Your task to perform on an android device: allow cookies in the chrome app Image 0: 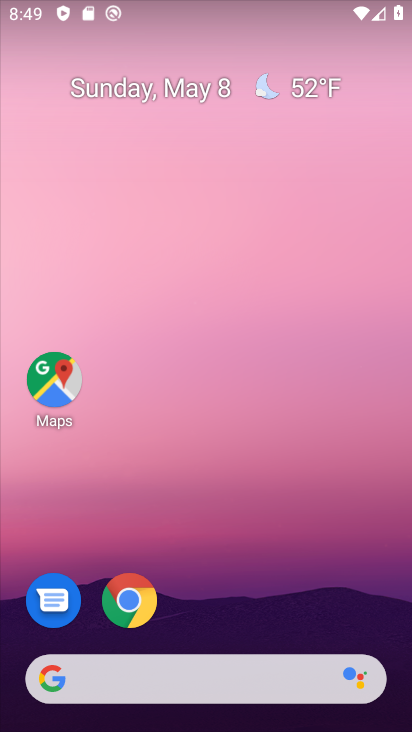
Step 0: click (144, 607)
Your task to perform on an android device: allow cookies in the chrome app Image 1: 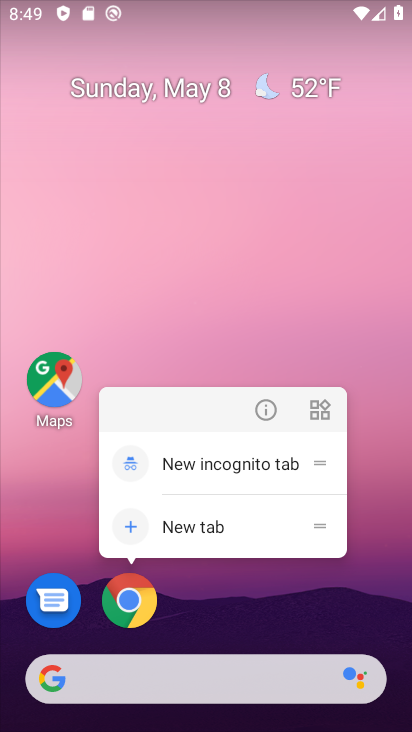
Step 1: click (140, 619)
Your task to perform on an android device: allow cookies in the chrome app Image 2: 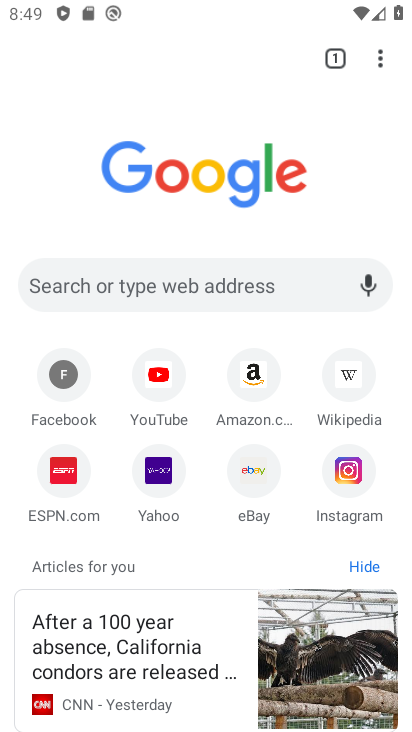
Step 2: drag from (383, 57) to (182, 491)
Your task to perform on an android device: allow cookies in the chrome app Image 3: 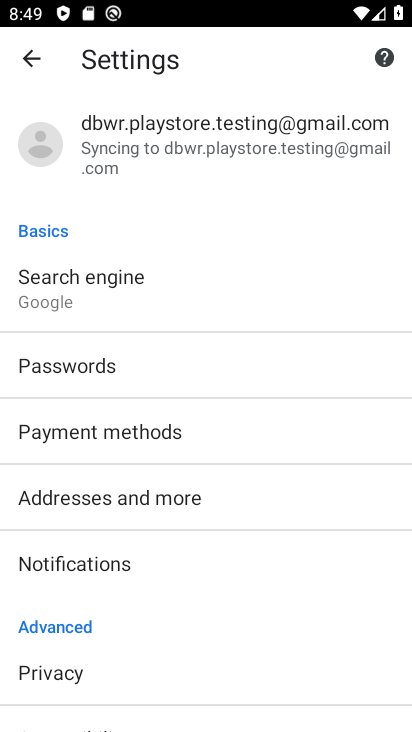
Step 3: drag from (151, 661) to (169, 407)
Your task to perform on an android device: allow cookies in the chrome app Image 4: 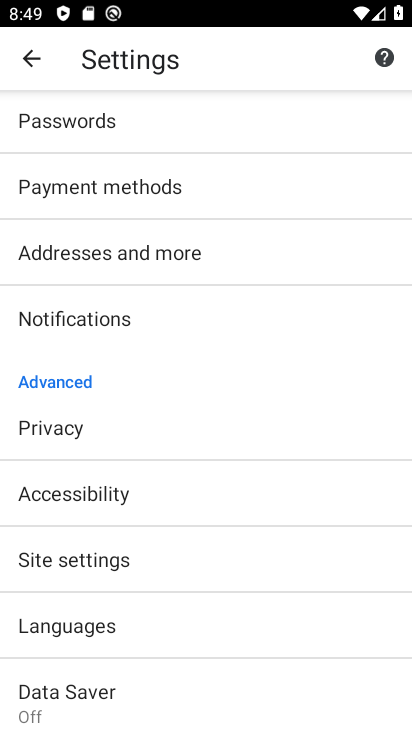
Step 4: click (114, 560)
Your task to perform on an android device: allow cookies in the chrome app Image 5: 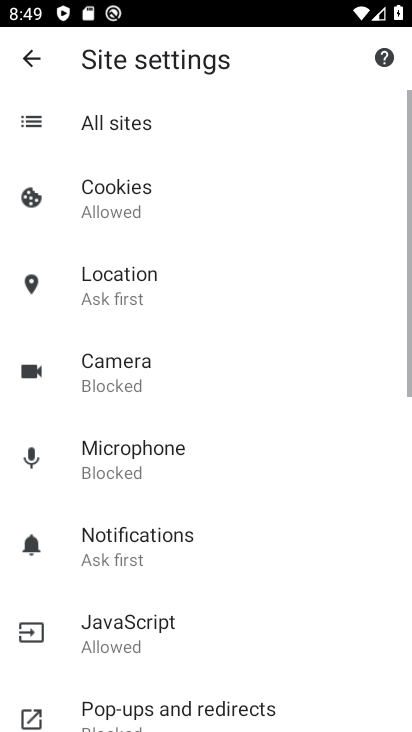
Step 5: click (185, 196)
Your task to perform on an android device: allow cookies in the chrome app Image 6: 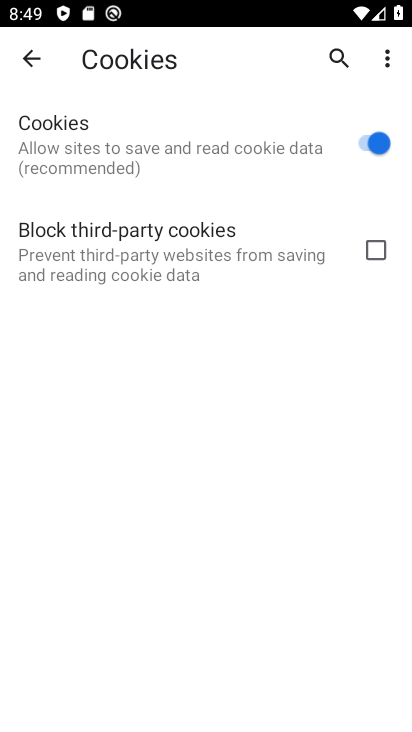
Step 6: task complete